Your task to perform on an android device: change the clock display to analog Image 0: 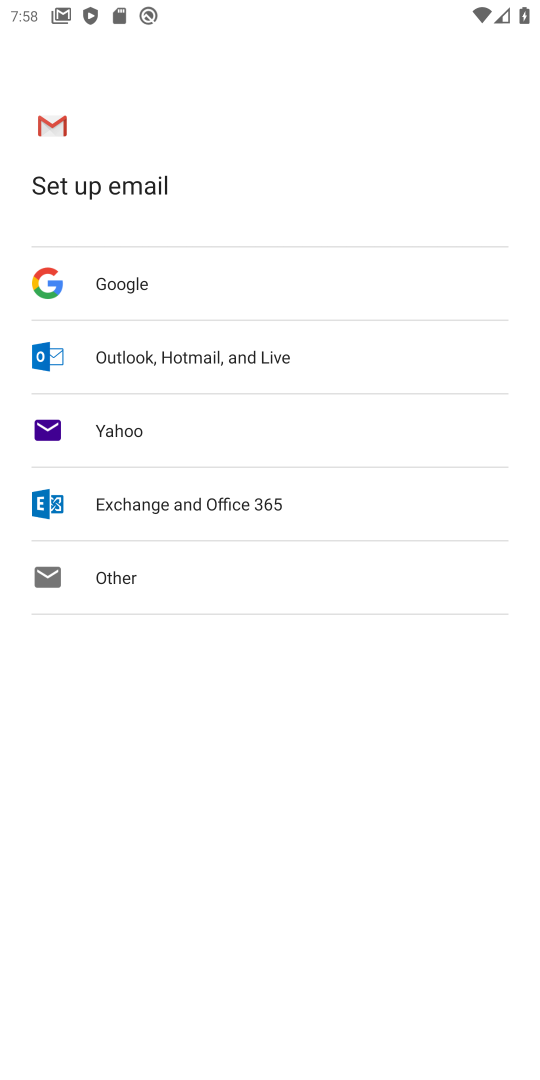
Step 0: press home button
Your task to perform on an android device: change the clock display to analog Image 1: 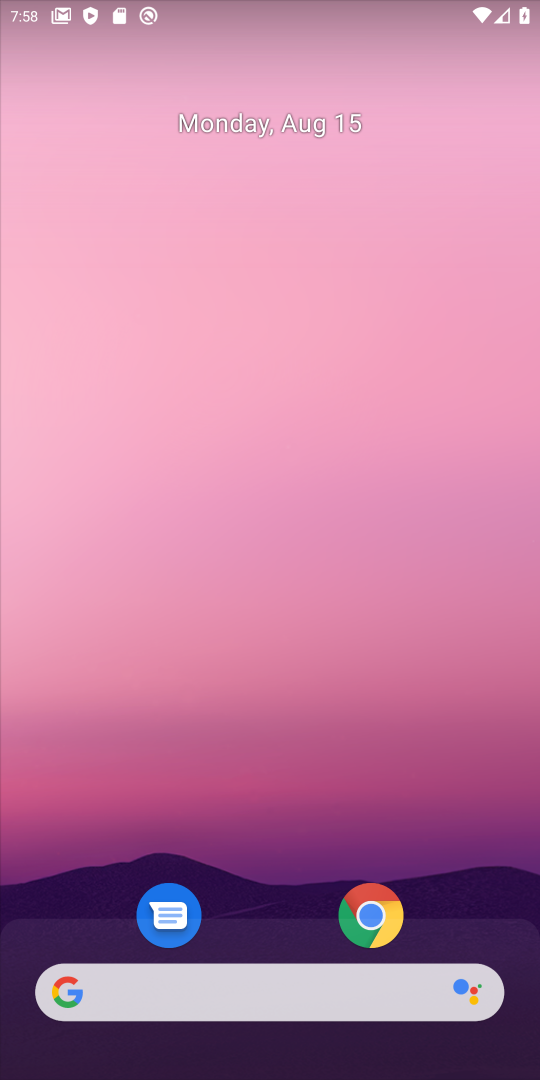
Step 1: drag from (295, 766) to (313, 1)
Your task to perform on an android device: change the clock display to analog Image 2: 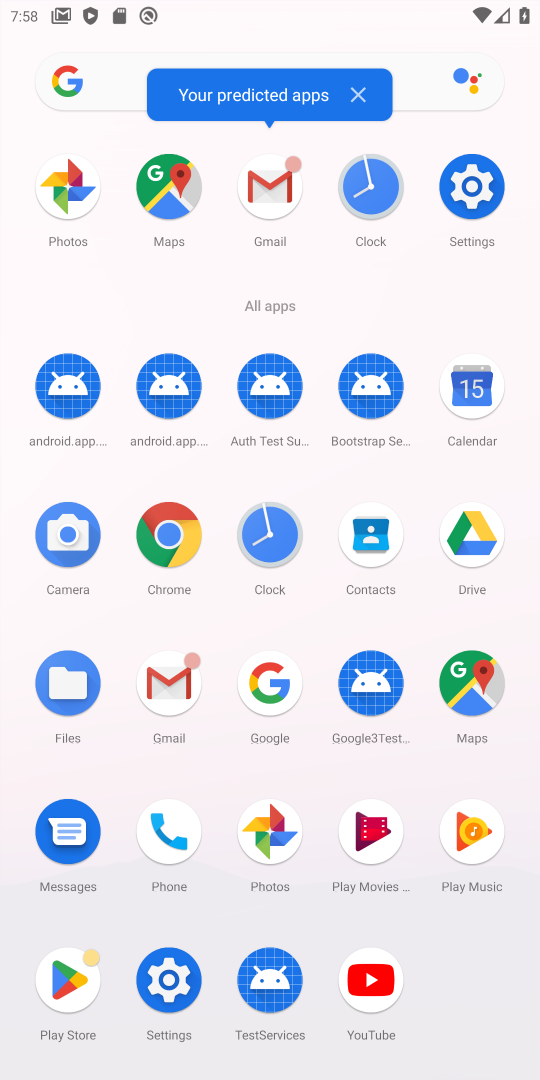
Step 2: click (372, 179)
Your task to perform on an android device: change the clock display to analog Image 3: 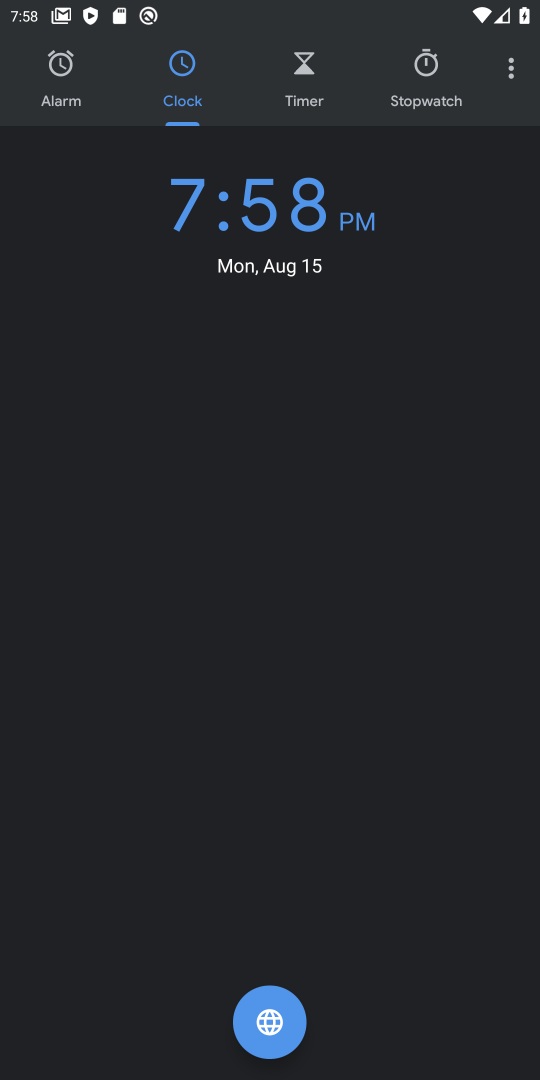
Step 3: click (509, 72)
Your task to perform on an android device: change the clock display to analog Image 4: 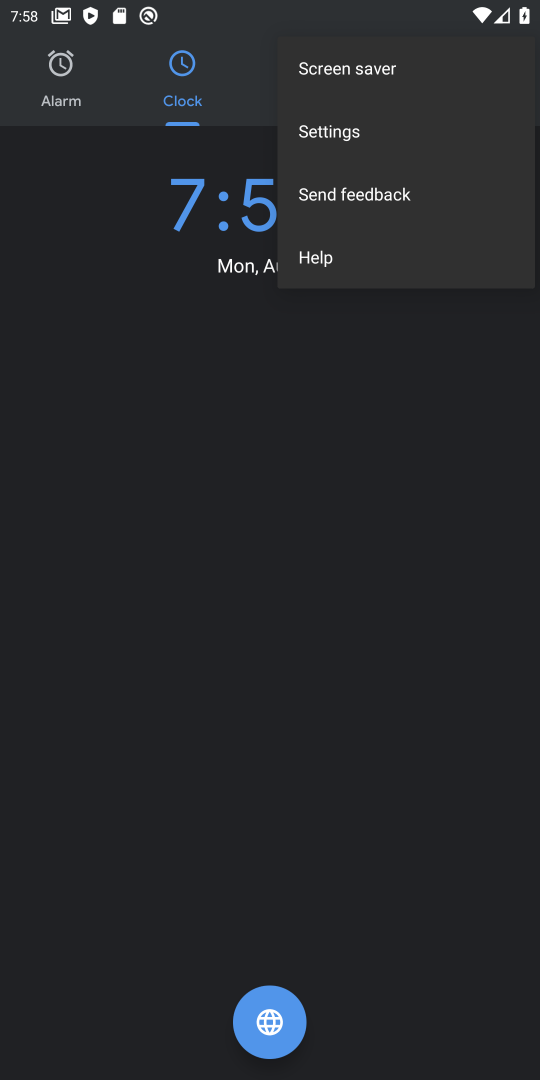
Step 4: click (381, 131)
Your task to perform on an android device: change the clock display to analog Image 5: 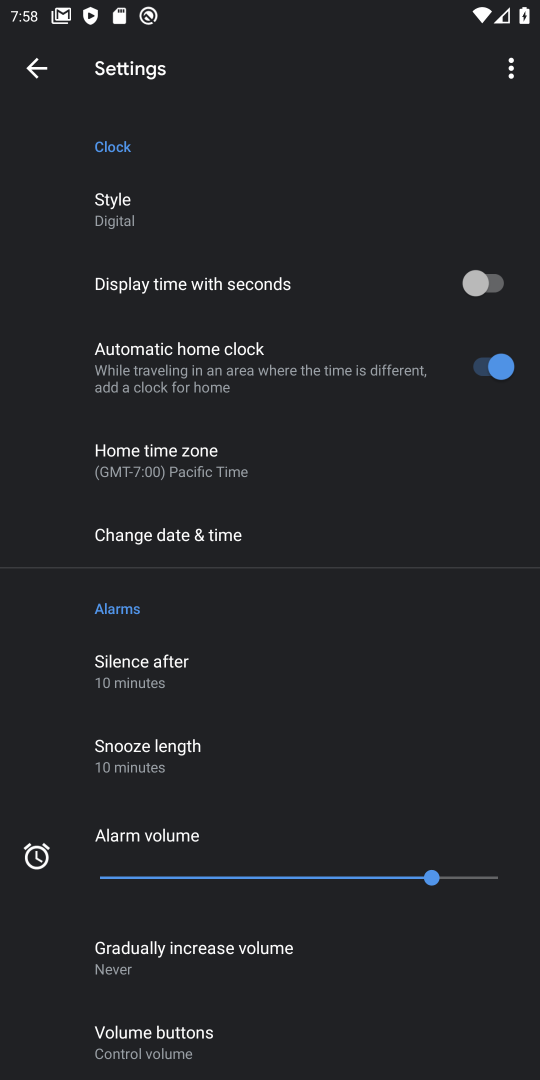
Step 5: click (132, 226)
Your task to perform on an android device: change the clock display to analog Image 6: 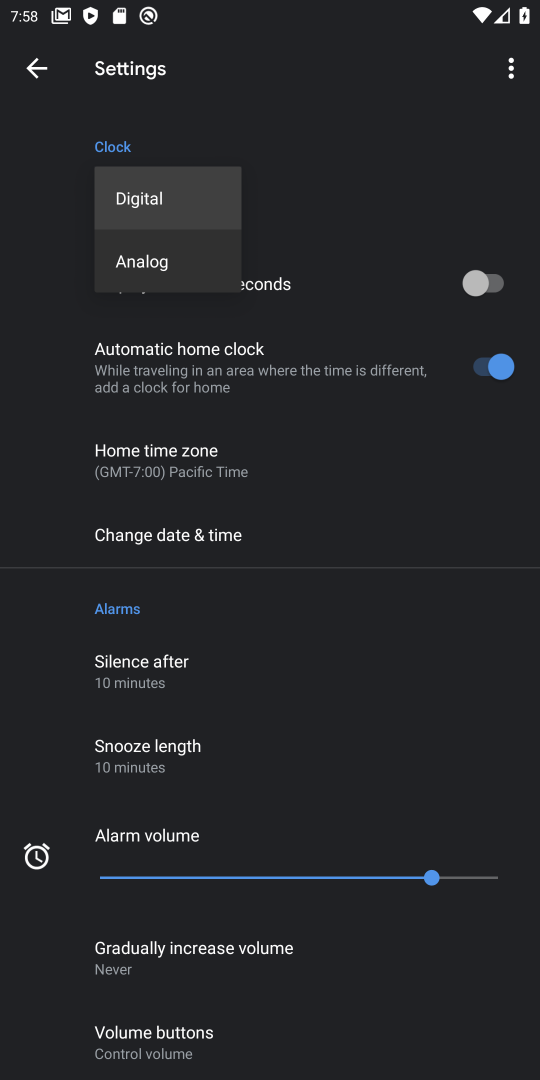
Step 6: click (144, 254)
Your task to perform on an android device: change the clock display to analog Image 7: 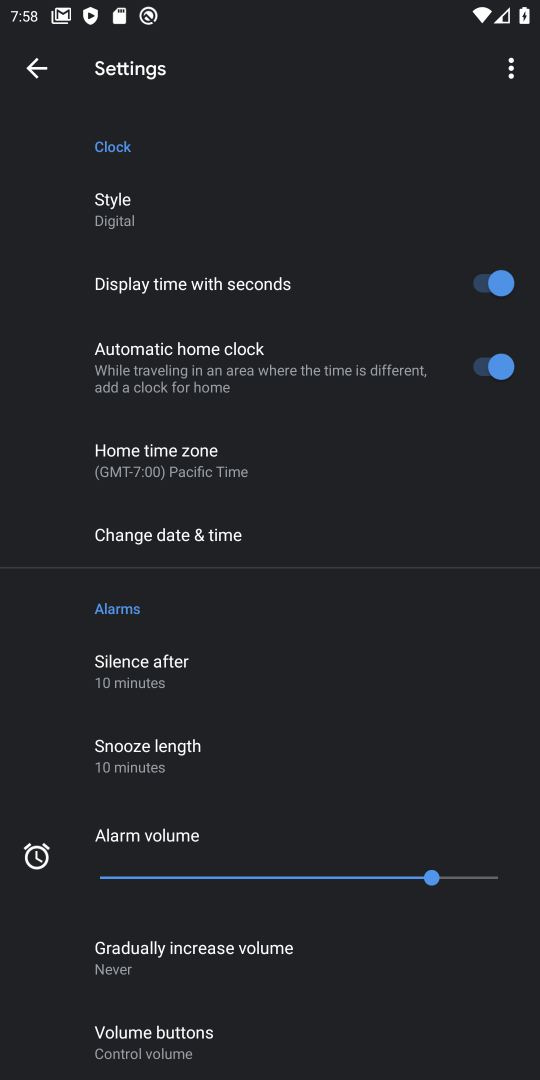
Step 7: click (127, 222)
Your task to perform on an android device: change the clock display to analog Image 8: 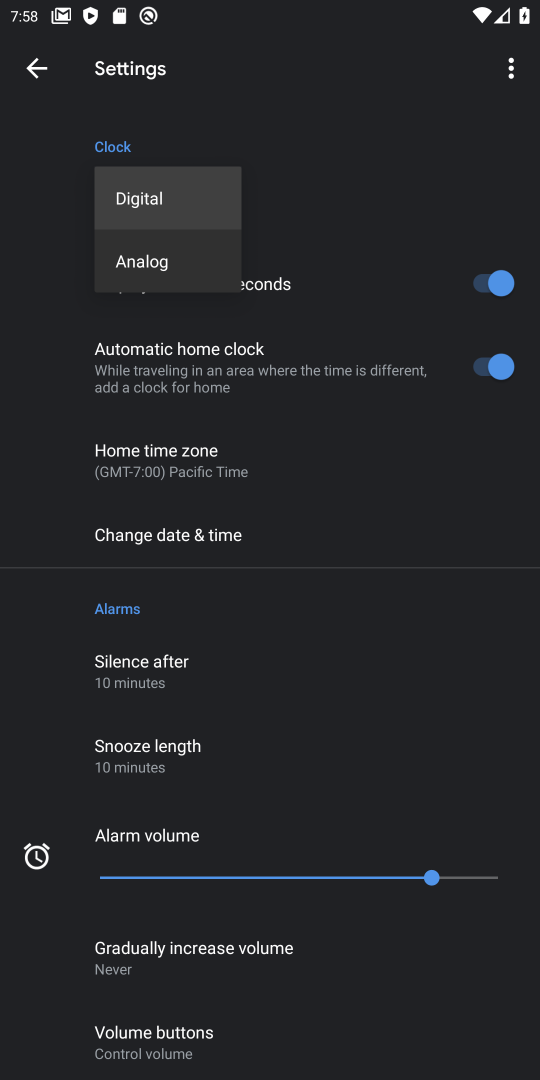
Step 8: click (145, 263)
Your task to perform on an android device: change the clock display to analog Image 9: 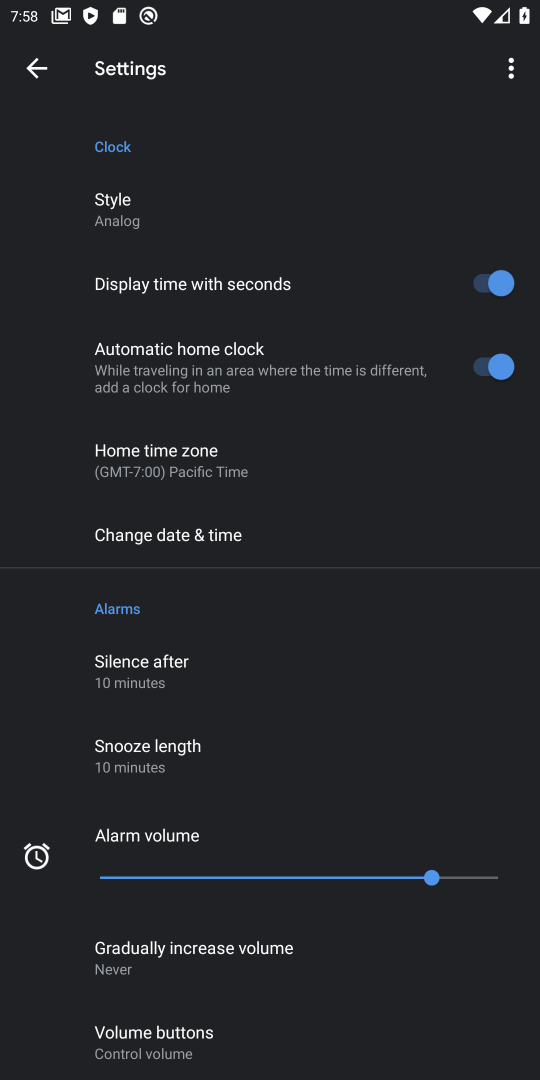
Step 9: click (37, 71)
Your task to perform on an android device: change the clock display to analog Image 10: 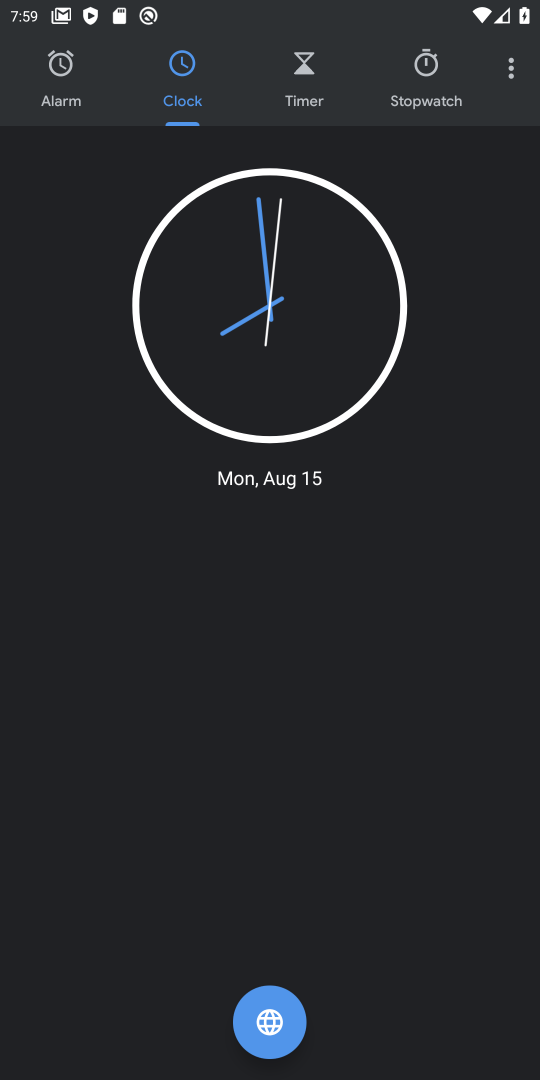
Step 10: task complete